Your task to perform on an android device: Open Google Maps and go to "Timeline" Image 0: 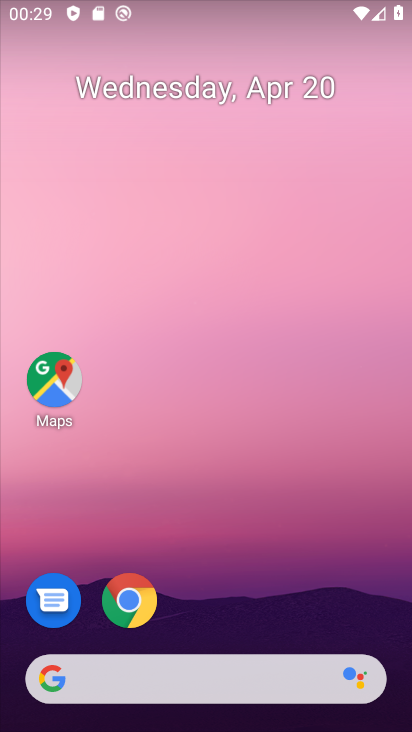
Step 0: drag from (314, 404) to (207, 15)
Your task to perform on an android device: Open Google Maps and go to "Timeline" Image 1: 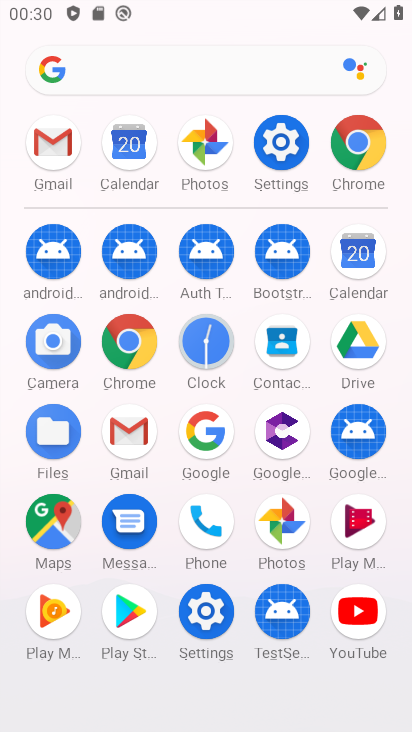
Step 1: click (52, 523)
Your task to perform on an android device: Open Google Maps and go to "Timeline" Image 2: 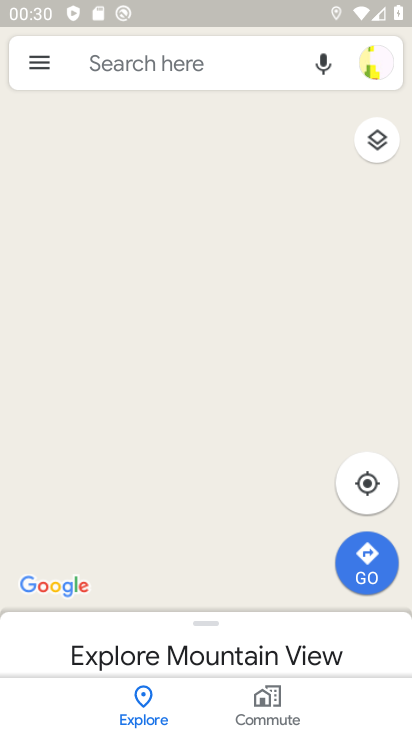
Step 2: click (42, 54)
Your task to perform on an android device: Open Google Maps and go to "Timeline" Image 3: 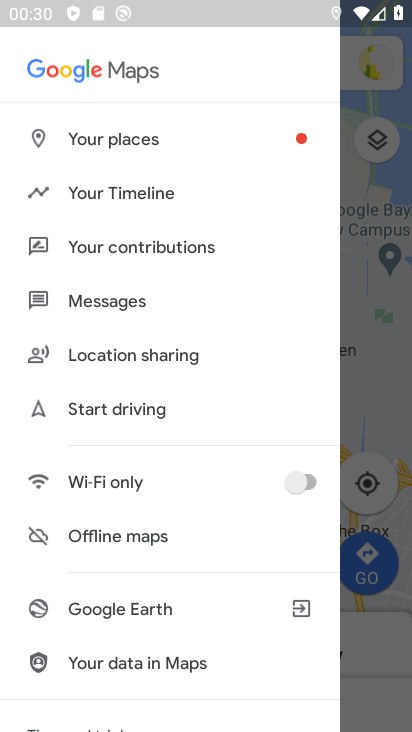
Step 3: click (88, 179)
Your task to perform on an android device: Open Google Maps and go to "Timeline" Image 4: 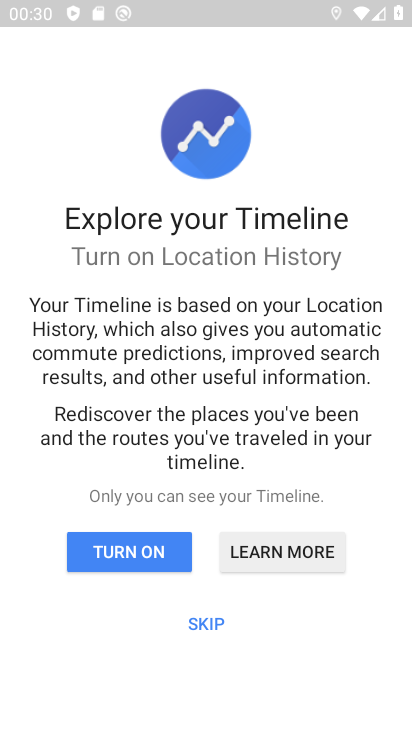
Step 4: click (133, 545)
Your task to perform on an android device: Open Google Maps and go to "Timeline" Image 5: 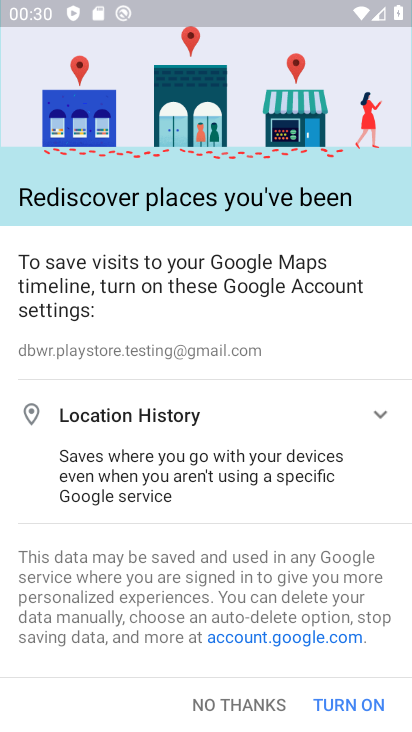
Step 5: click (355, 690)
Your task to perform on an android device: Open Google Maps and go to "Timeline" Image 6: 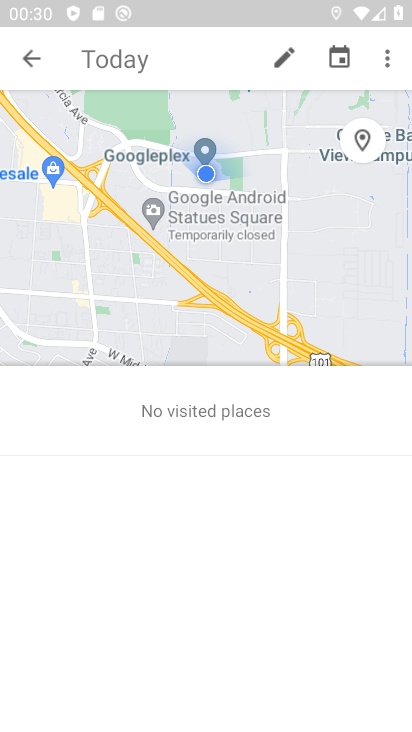
Step 6: task complete